Your task to perform on an android device: Open Android settings Image 0: 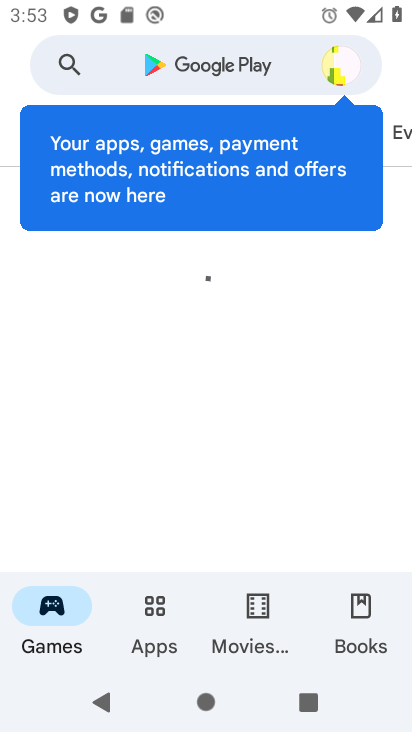
Step 0: press home button
Your task to perform on an android device: Open Android settings Image 1: 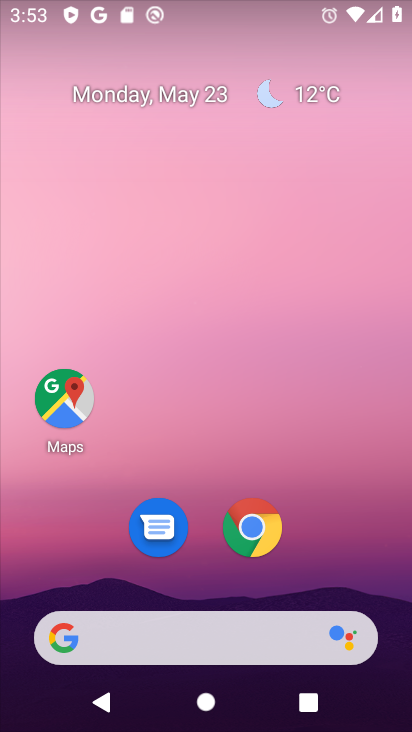
Step 1: click (312, 88)
Your task to perform on an android device: Open Android settings Image 2: 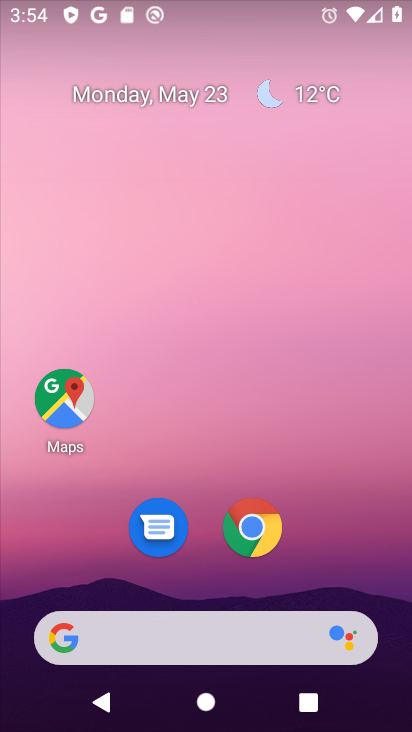
Step 2: drag from (204, 585) to (230, 69)
Your task to perform on an android device: Open Android settings Image 3: 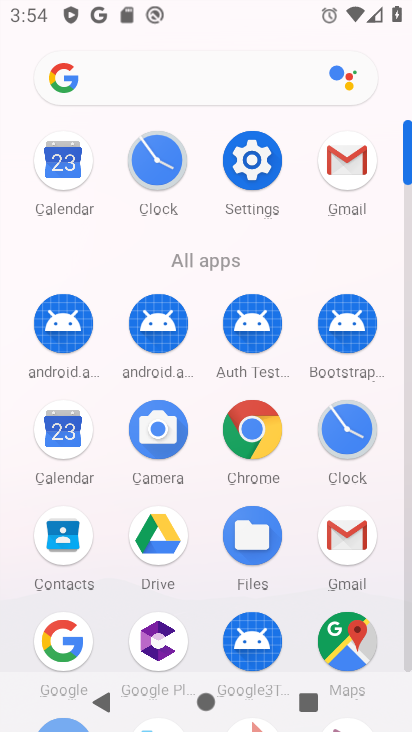
Step 3: click (249, 150)
Your task to perform on an android device: Open Android settings Image 4: 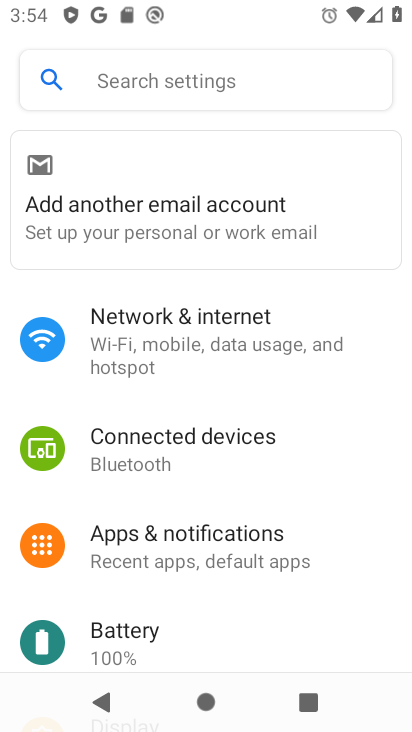
Step 4: drag from (206, 641) to (242, 102)
Your task to perform on an android device: Open Android settings Image 5: 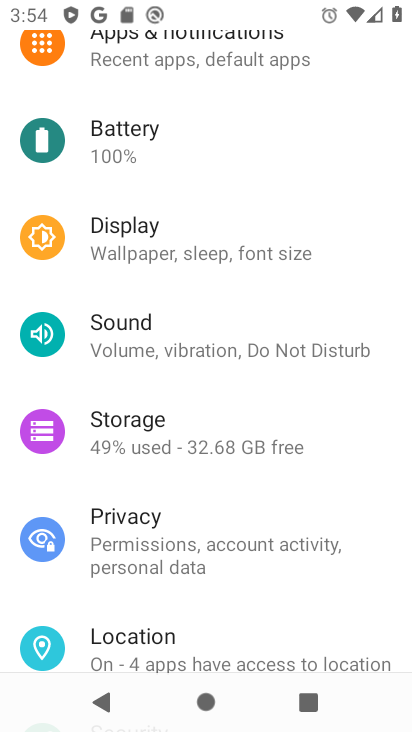
Step 5: drag from (203, 638) to (228, 90)
Your task to perform on an android device: Open Android settings Image 6: 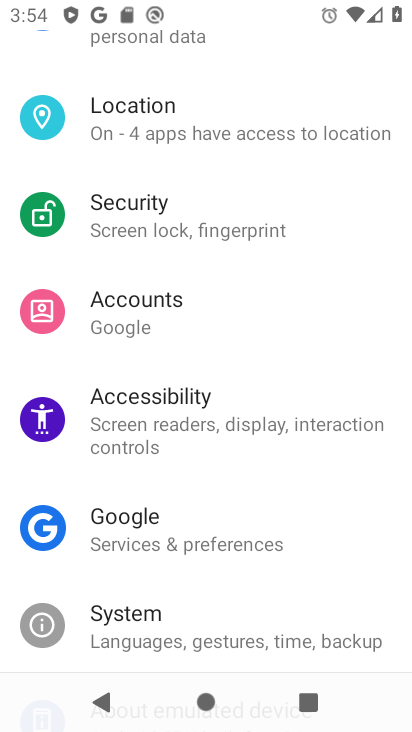
Step 6: drag from (211, 624) to (221, 113)
Your task to perform on an android device: Open Android settings Image 7: 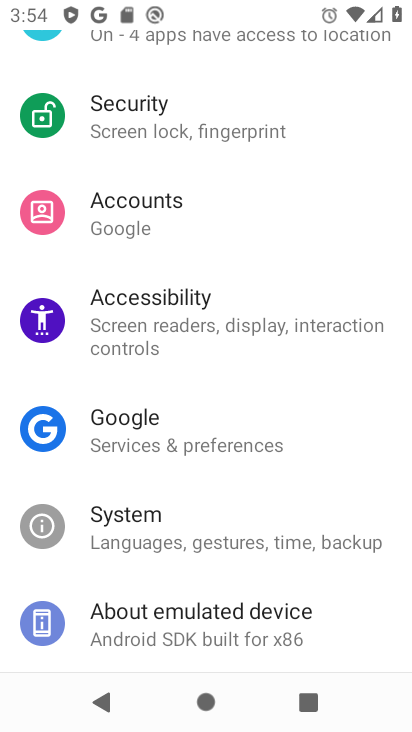
Step 7: click (304, 626)
Your task to perform on an android device: Open Android settings Image 8: 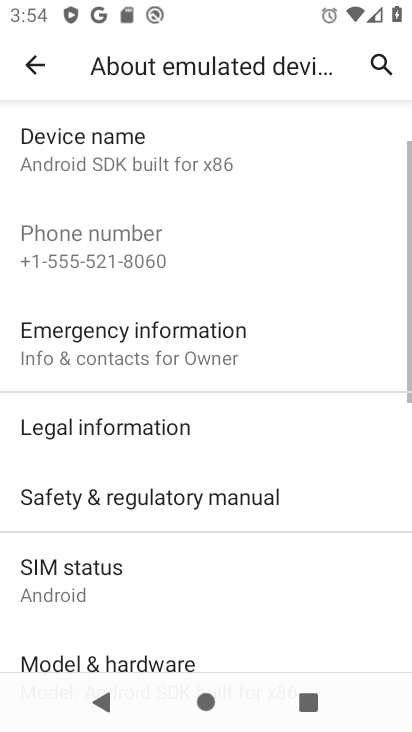
Step 8: drag from (208, 627) to (250, 168)
Your task to perform on an android device: Open Android settings Image 9: 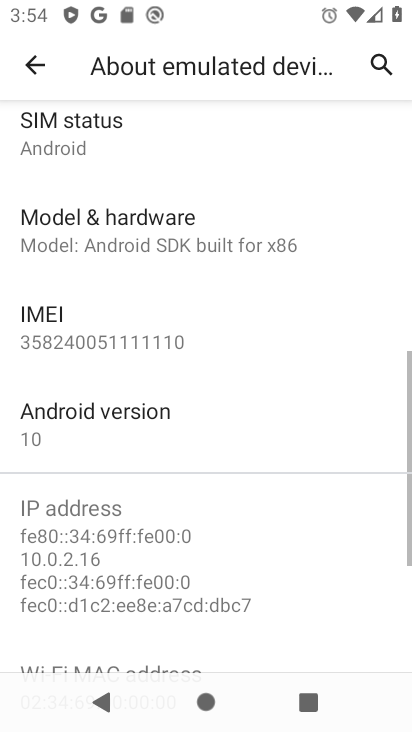
Step 9: drag from (231, 646) to (264, 192)
Your task to perform on an android device: Open Android settings Image 10: 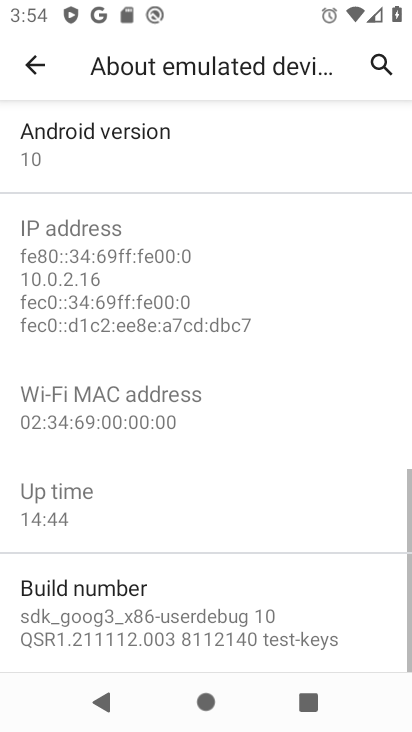
Step 10: click (46, 151)
Your task to perform on an android device: Open Android settings Image 11: 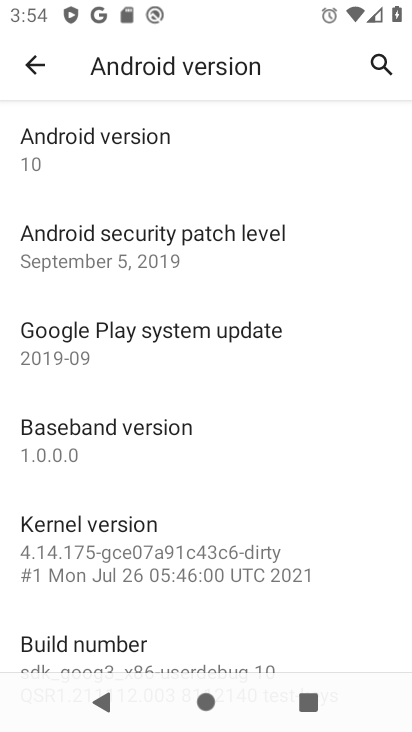
Step 11: task complete